Your task to perform on an android device: toggle translation in the chrome app Image 0: 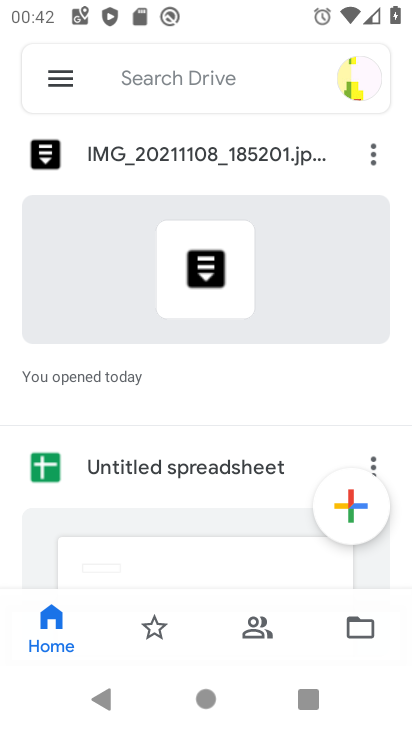
Step 0: press home button
Your task to perform on an android device: toggle translation in the chrome app Image 1: 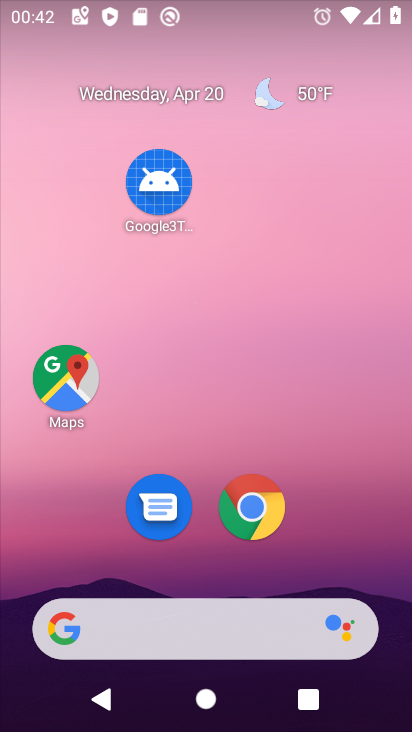
Step 1: drag from (200, 571) to (209, 13)
Your task to perform on an android device: toggle translation in the chrome app Image 2: 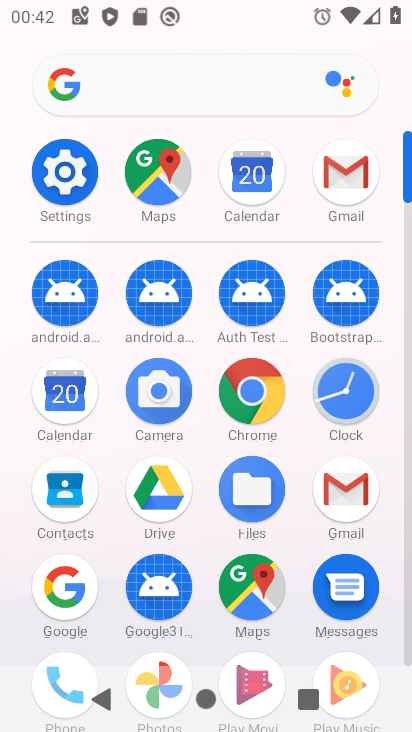
Step 2: click (255, 396)
Your task to perform on an android device: toggle translation in the chrome app Image 3: 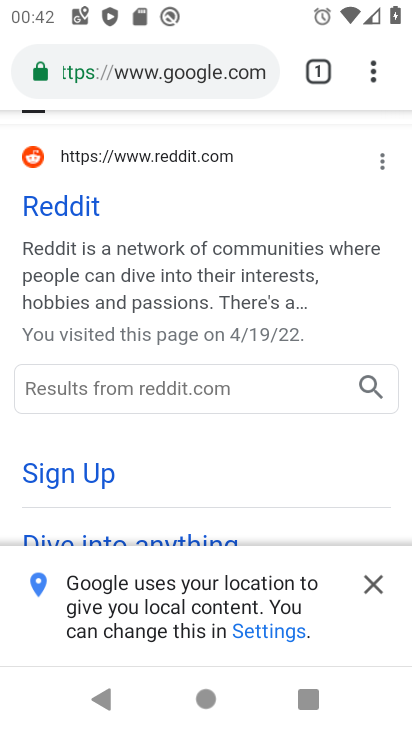
Step 3: click (371, 70)
Your task to perform on an android device: toggle translation in the chrome app Image 4: 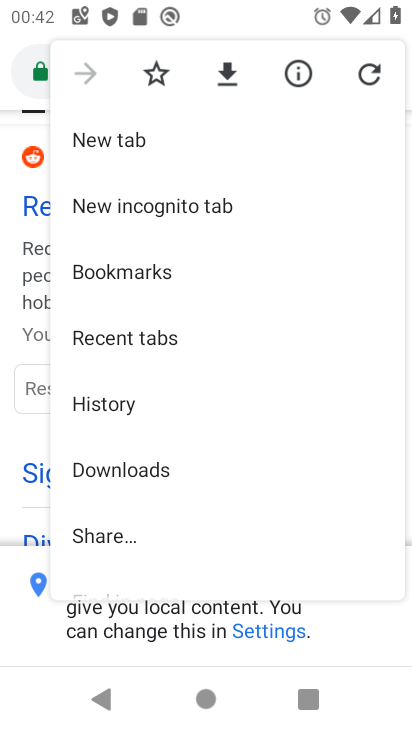
Step 4: drag from (224, 534) to (199, 3)
Your task to perform on an android device: toggle translation in the chrome app Image 5: 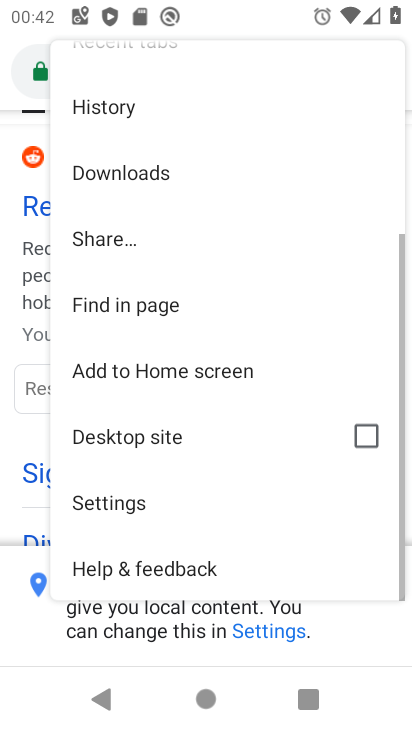
Step 5: drag from (223, 452) to (176, 28)
Your task to perform on an android device: toggle translation in the chrome app Image 6: 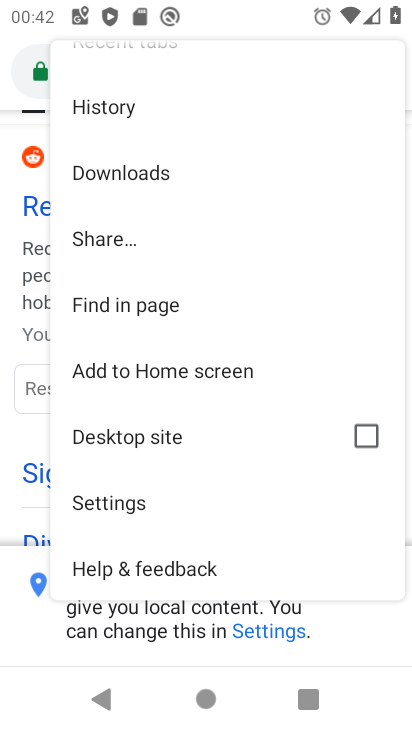
Step 6: click (112, 498)
Your task to perform on an android device: toggle translation in the chrome app Image 7: 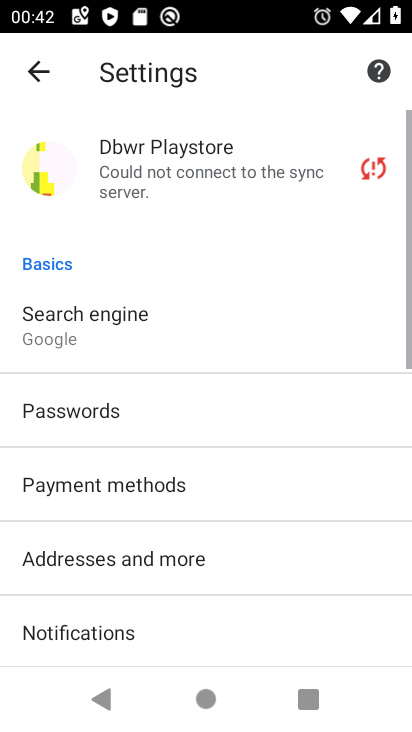
Step 7: drag from (208, 550) to (221, 99)
Your task to perform on an android device: toggle translation in the chrome app Image 8: 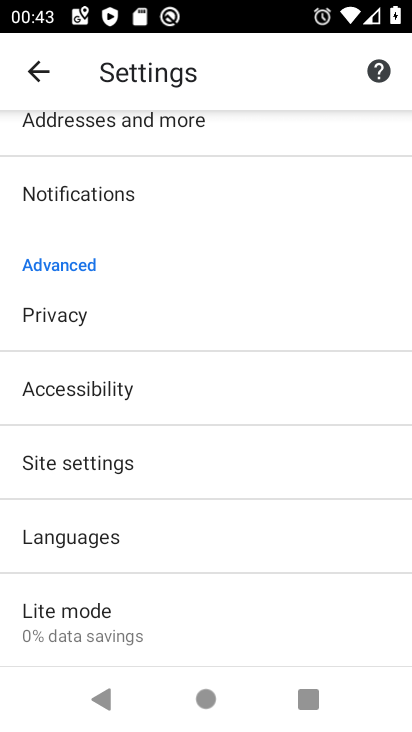
Step 8: click (99, 541)
Your task to perform on an android device: toggle translation in the chrome app Image 9: 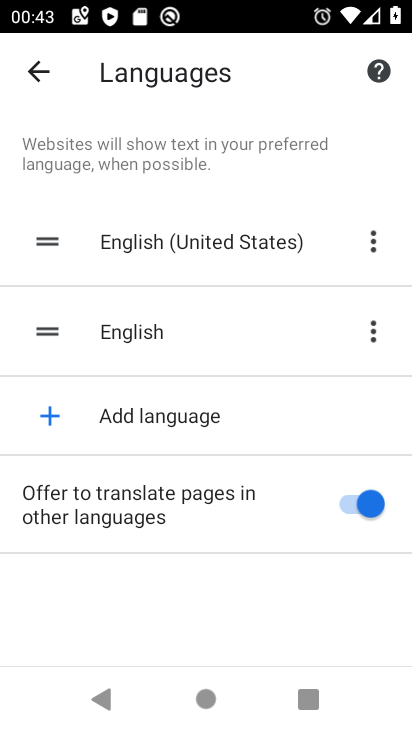
Step 9: click (364, 506)
Your task to perform on an android device: toggle translation in the chrome app Image 10: 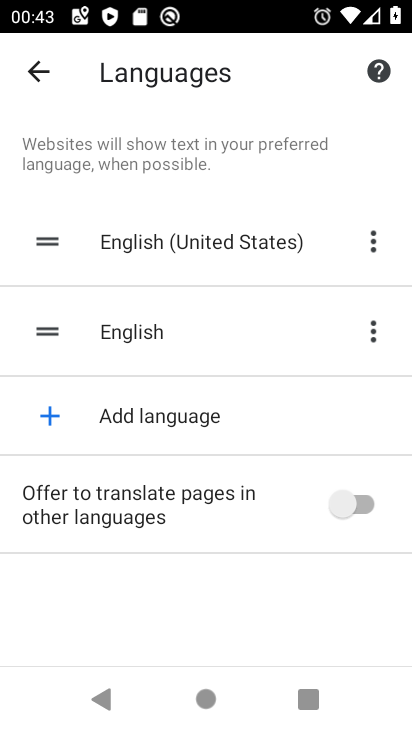
Step 10: task complete